Your task to perform on an android device: manage bookmarks in the chrome app Image 0: 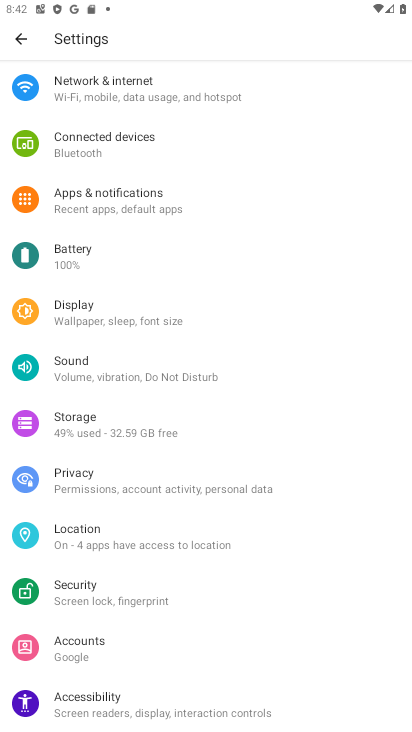
Step 0: press back button
Your task to perform on an android device: manage bookmarks in the chrome app Image 1: 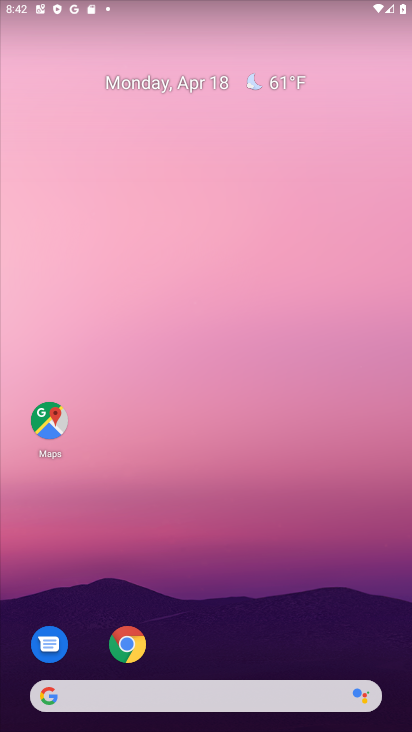
Step 1: click (127, 659)
Your task to perform on an android device: manage bookmarks in the chrome app Image 2: 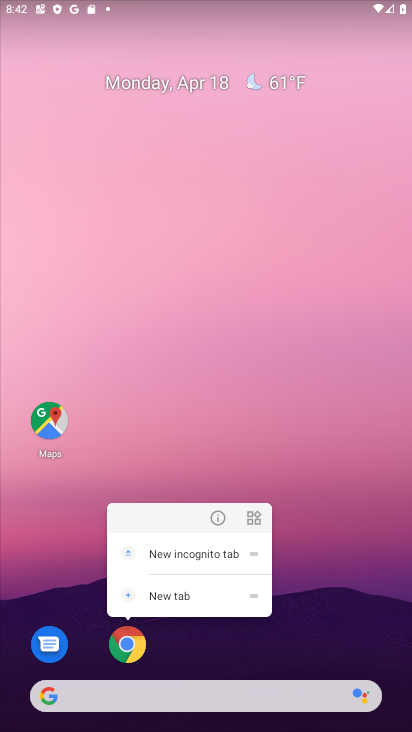
Step 2: click (127, 659)
Your task to perform on an android device: manage bookmarks in the chrome app Image 3: 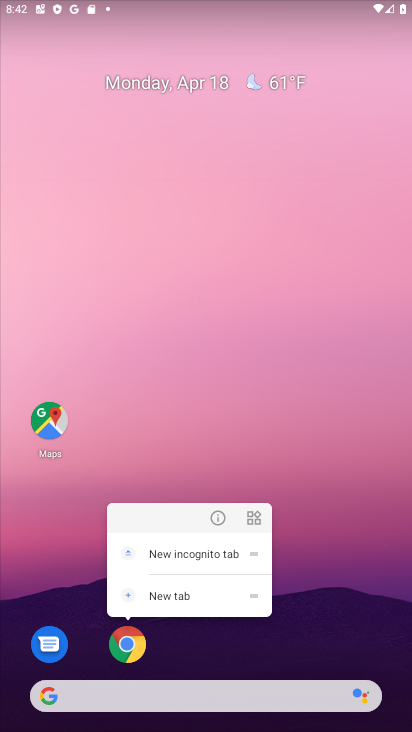
Step 3: click (116, 660)
Your task to perform on an android device: manage bookmarks in the chrome app Image 4: 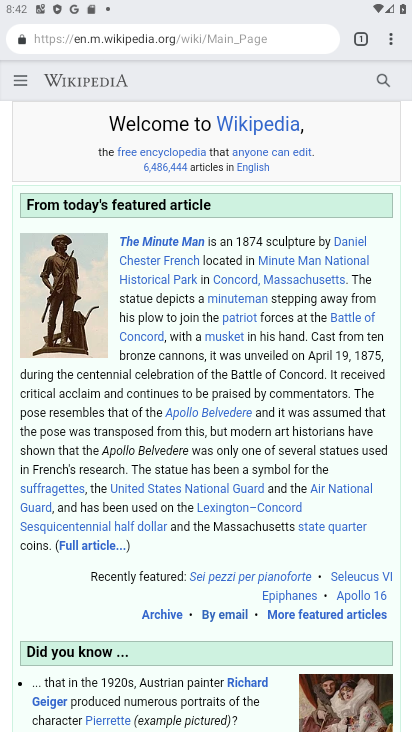
Step 4: click (387, 38)
Your task to perform on an android device: manage bookmarks in the chrome app Image 5: 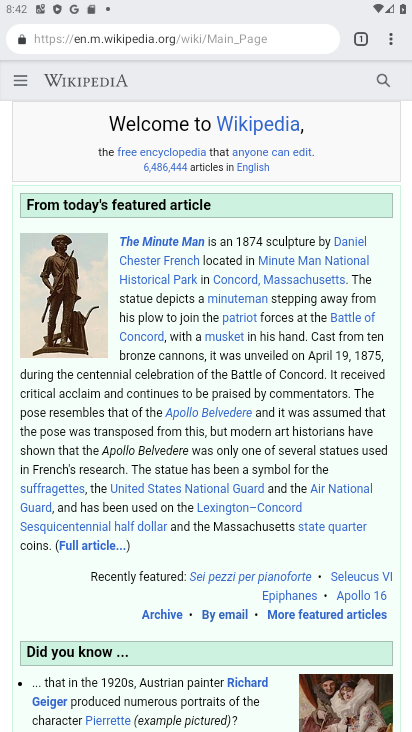
Step 5: click (391, 43)
Your task to perform on an android device: manage bookmarks in the chrome app Image 6: 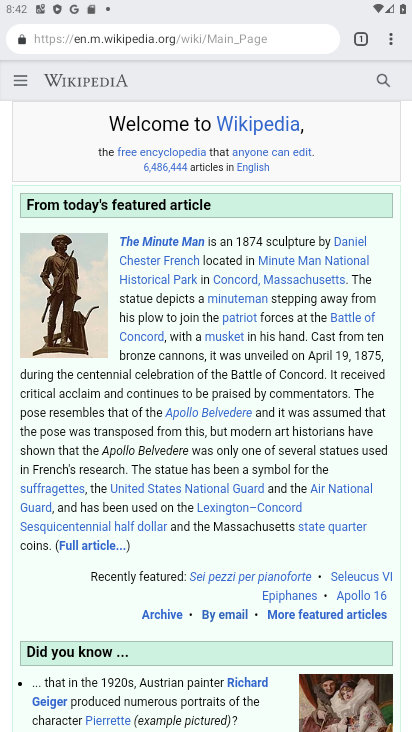
Step 6: drag from (391, 43) to (299, 144)
Your task to perform on an android device: manage bookmarks in the chrome app Image 7: 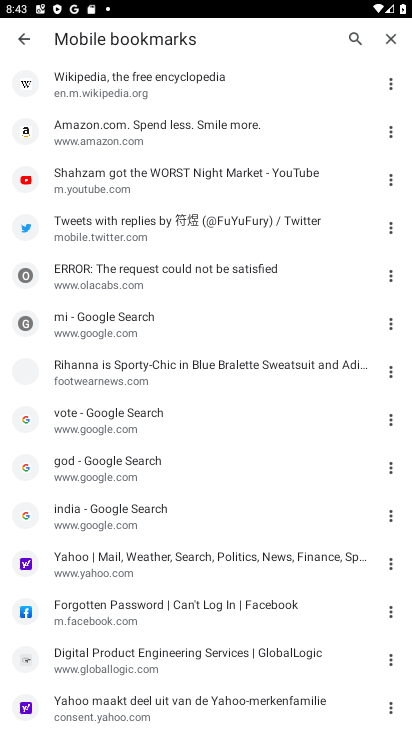
Step 7: click (390, 125)
Your task to perform on an android device: manage bookmarks in the chrome app Image 8: 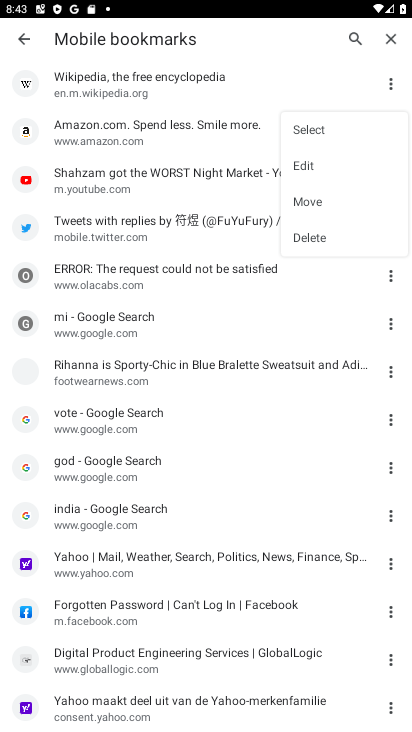
Step 8: click (340, 236)
Your task to perform on an android device: manage bookmarks in the chrome app Image 9: 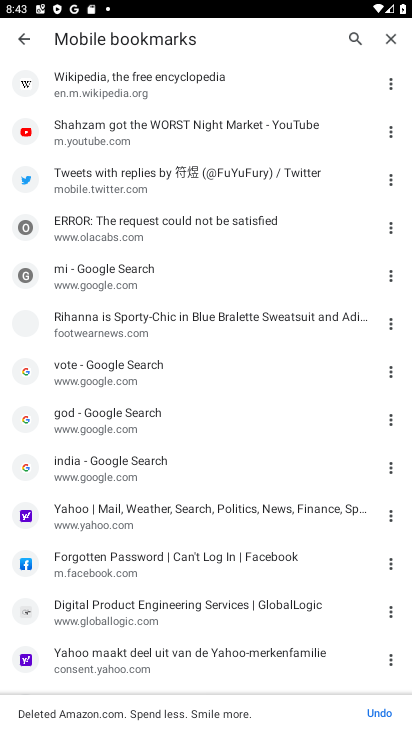
Step 9: task complete